Your task to perform on an android device: What's the weather? Image 0: 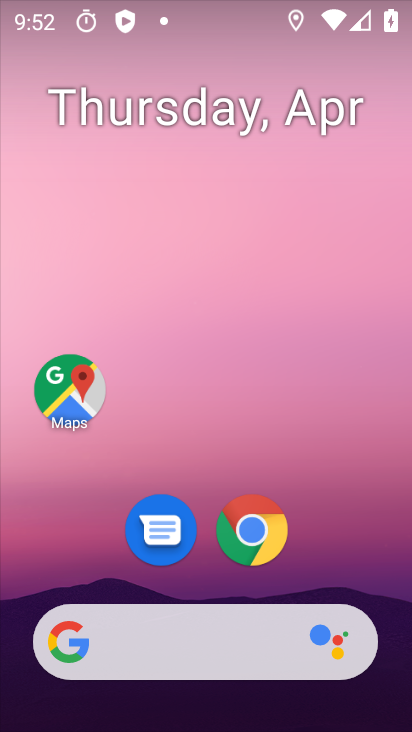
Step 0: drag from (336, 553) to (197, 151)
Your task to perform on an android device: What's the weather? Image 1: 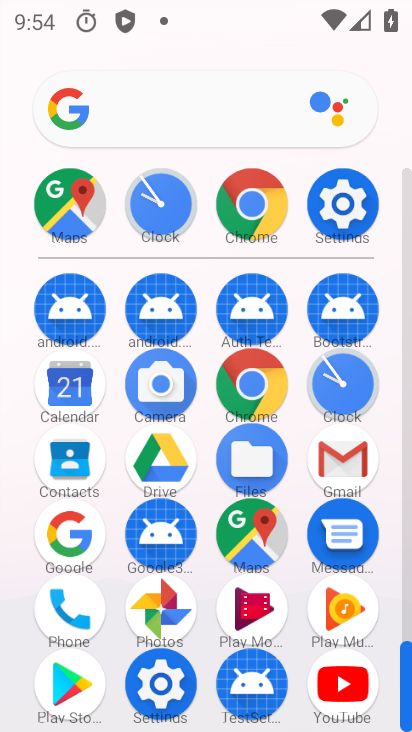
Step 1: press back button
Your task to perform on an android device: What's the weather? Image 2: 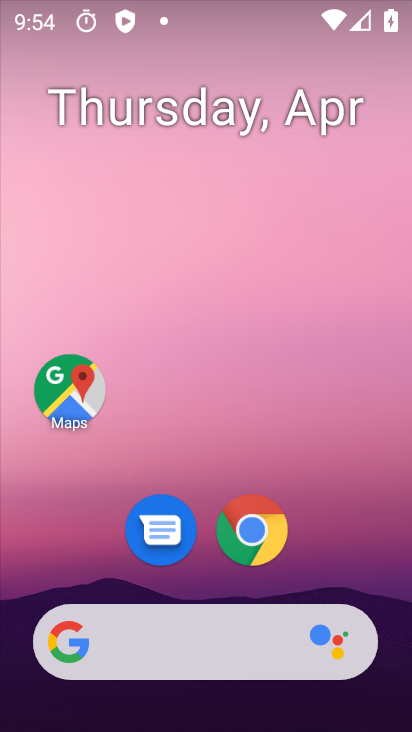
Step 2: click (160, 660)
Your task to perform on an android device: What's the weather? Image 3: 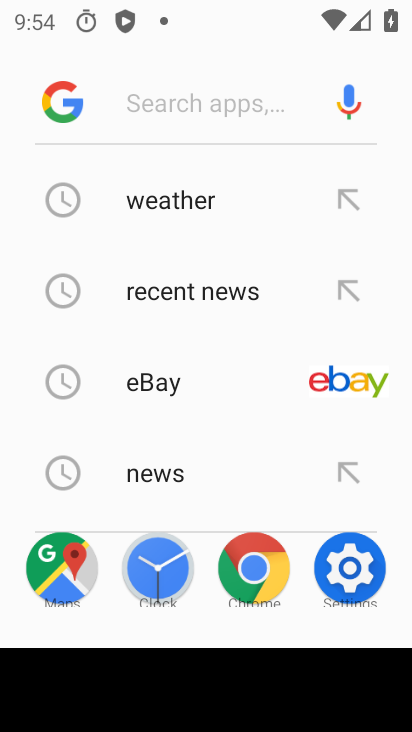
Step 3: click (200, 209)
Your task to perform on an android device: What's the weather? Image 4: 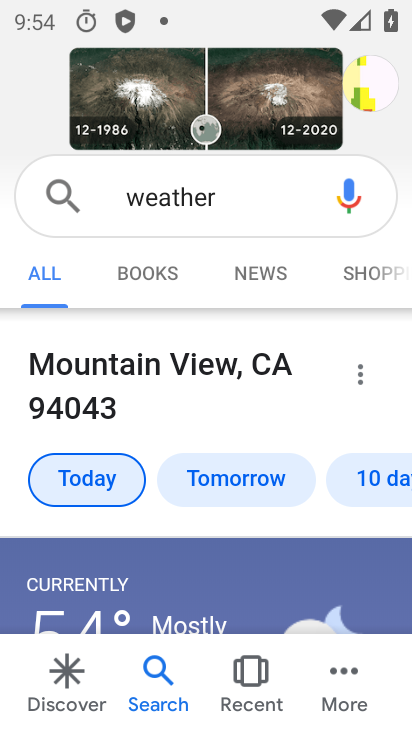
Step 4: task complete